Your task to perform on an android device: Go to privacy settings Image 0: 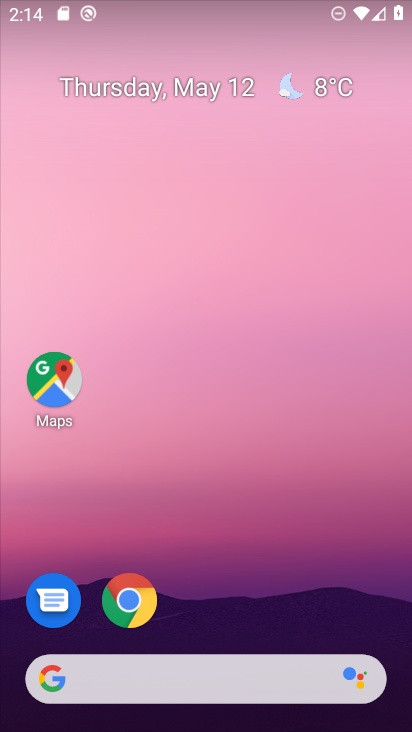
Step 0: drag from (191, 640) to (199, 204)
Your task to perform on an android device: Go to privacy settings Image 1: 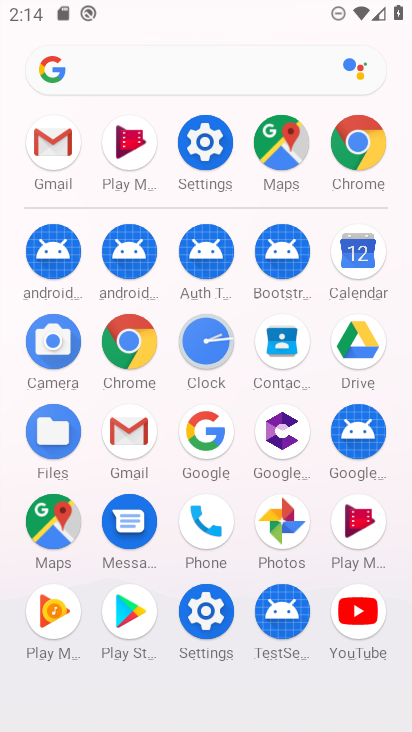
Step 1: click (201, 132)
Your task to perform on an android device: Go to privacy settings Image 2: 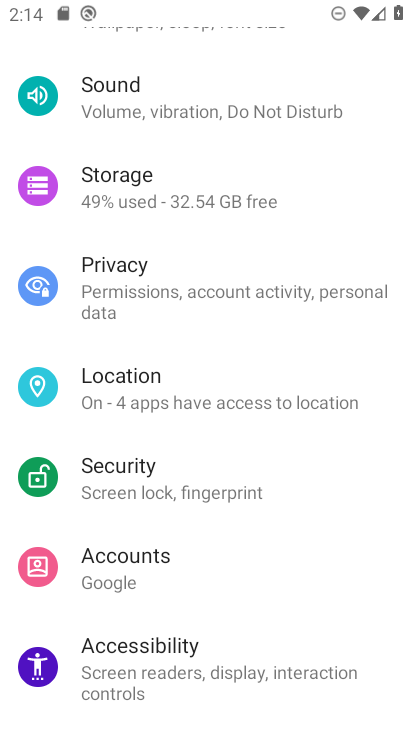
Step 2: click (121, 271)
Your task to perform on an android device: Go to privacy settings Image 3: 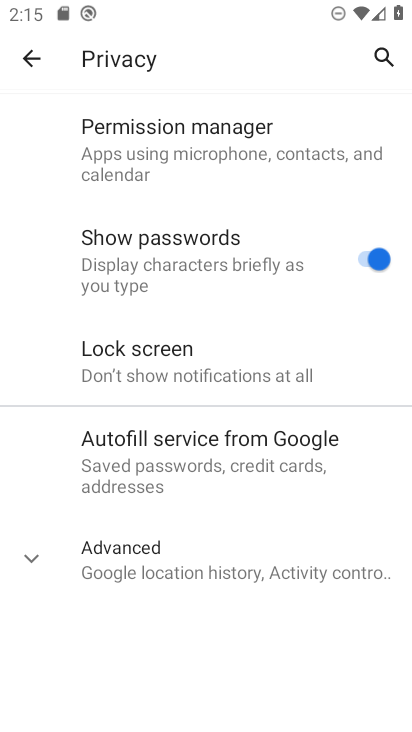
Step 3: task complete